Your task to perform on an android device: toggle translation in the chrome app Image 0: 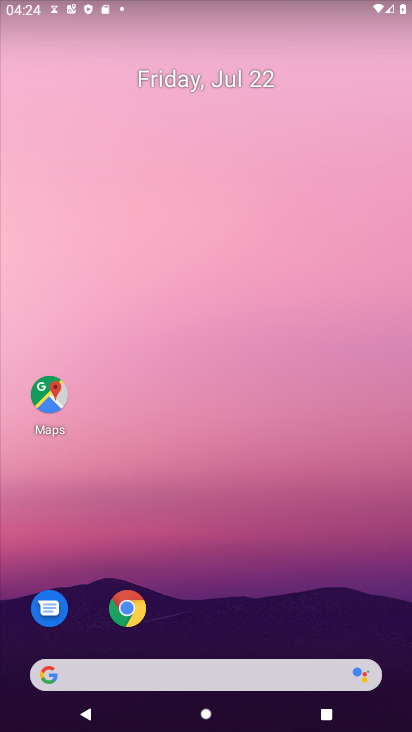
Step 0: drag from (238, 727) to (238, 106)
Your task to perform on an android device: toggle translation in the chrome app Image 1: 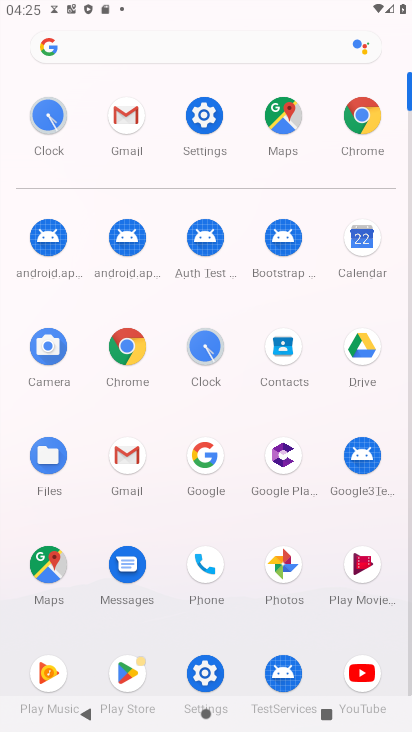
Step 1: click (121, 353)
Your task to perform on an android device: toggle translation in the chrome app Image 2: 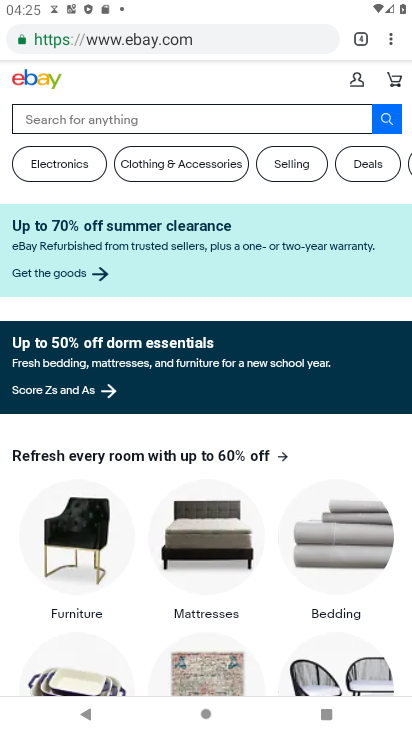
Step 2: click (391, 40)
Your task to perform on an android device: toggle translation in the chrome app Image 3: 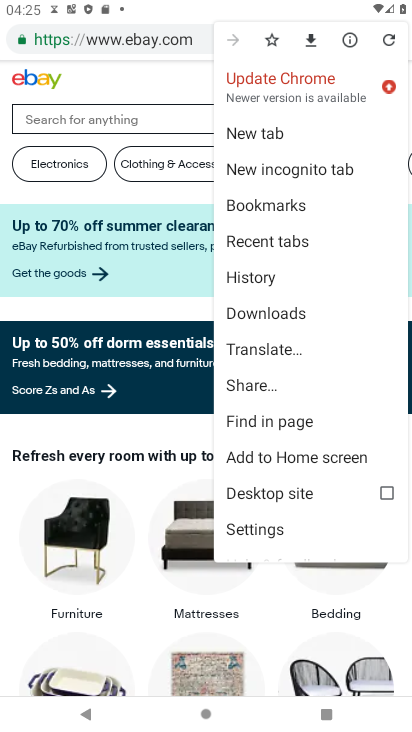
Step 3: click (261, 529)
Your task to perform on an android device: toggle translation in the chrome app Image 4: 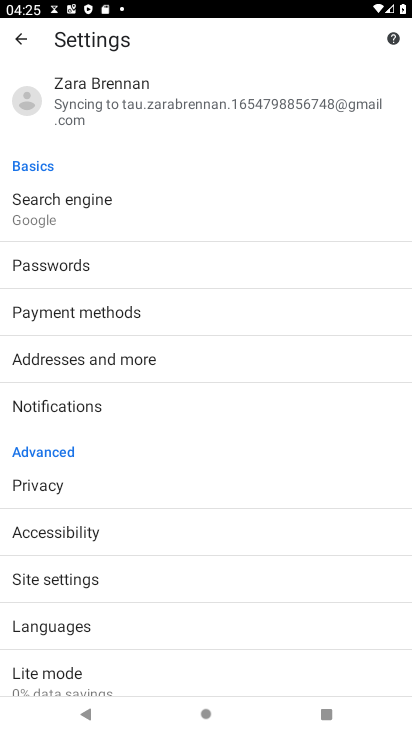
Step 4: click (44, 629)
Your task to perform on an android device: toggle translation in the chrome app Image 5: 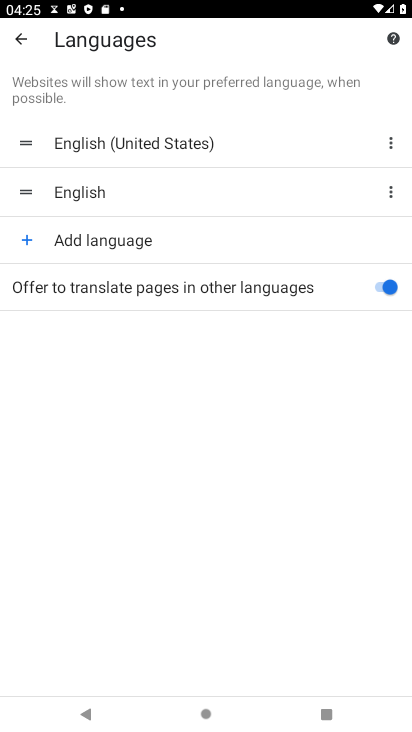
Step 5: click (383, 279)
Your task to perform on an android device: toggle translation in the chrome app Image 6: 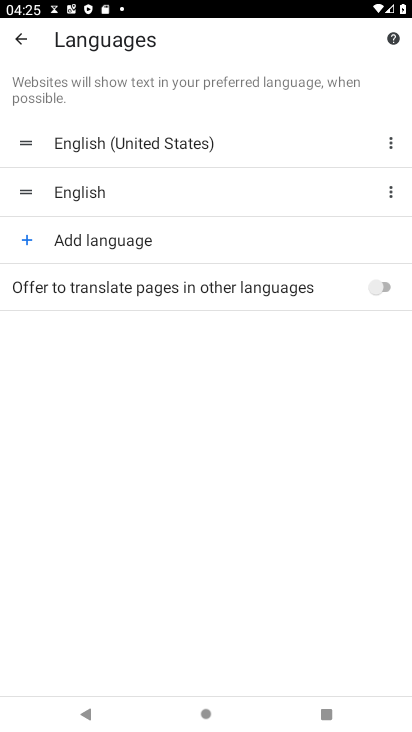
Step 6: task complete